Your task to perform on an android device: turn off translation in the chrome app Image 0: 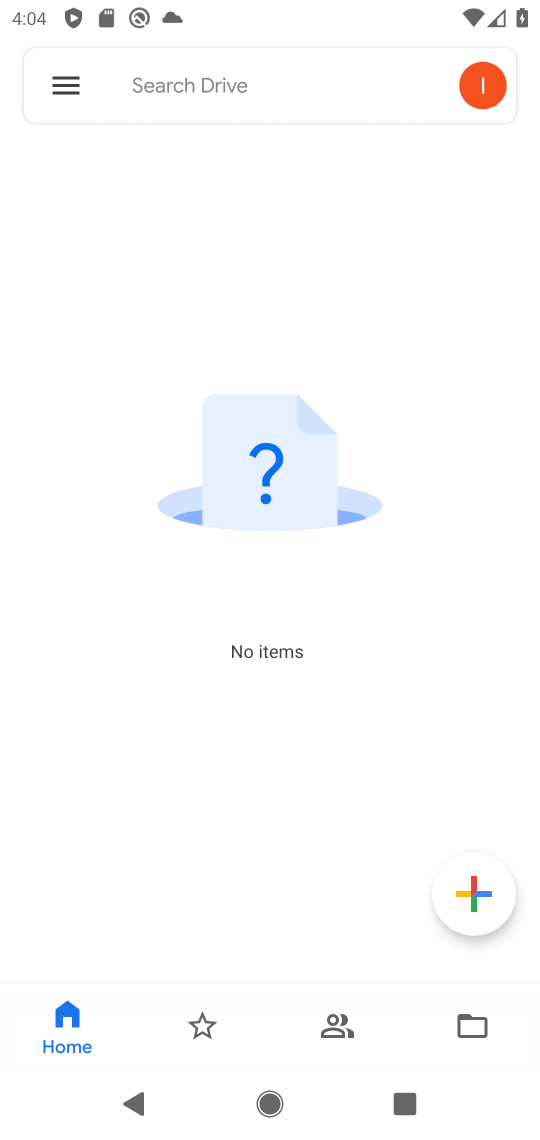
Step 0: press home button
Your task to perform on an android device: turn off translation in the chrome app Image 1: 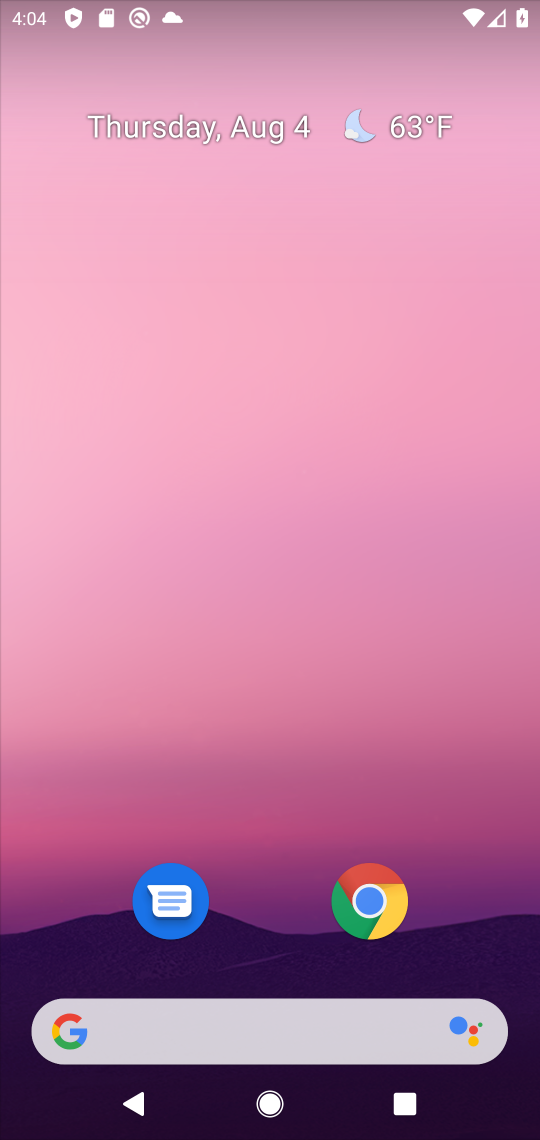
Step 1: drag from (311, 956) to (392, 133)
Your task to perform on an android device: turn off translation in the chrome app Image 2: 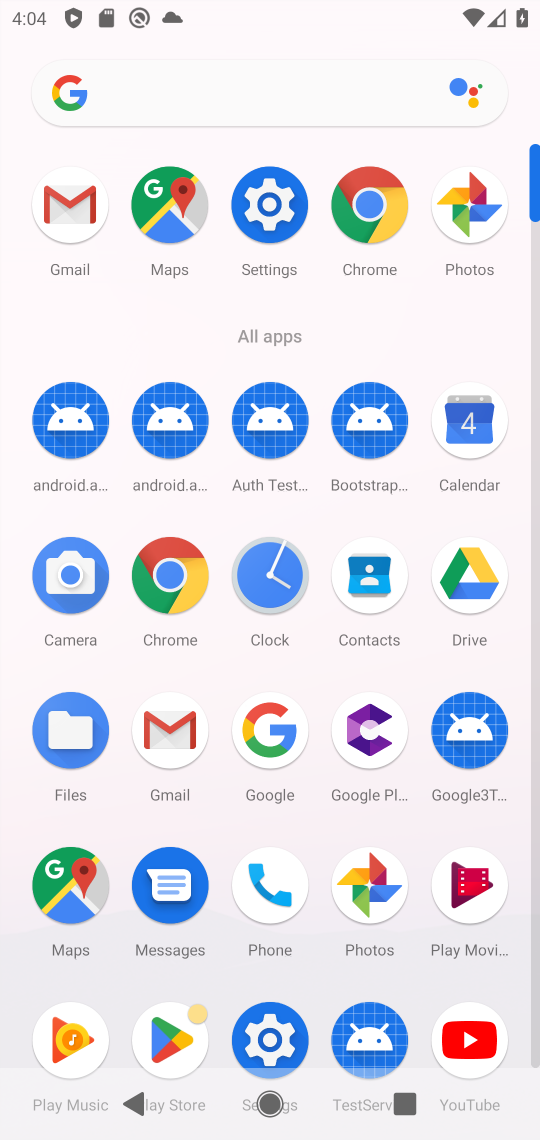
Step 2: click (172, 560)
Your task to perform on an android device: turn off translation in the chrome app Image 3: 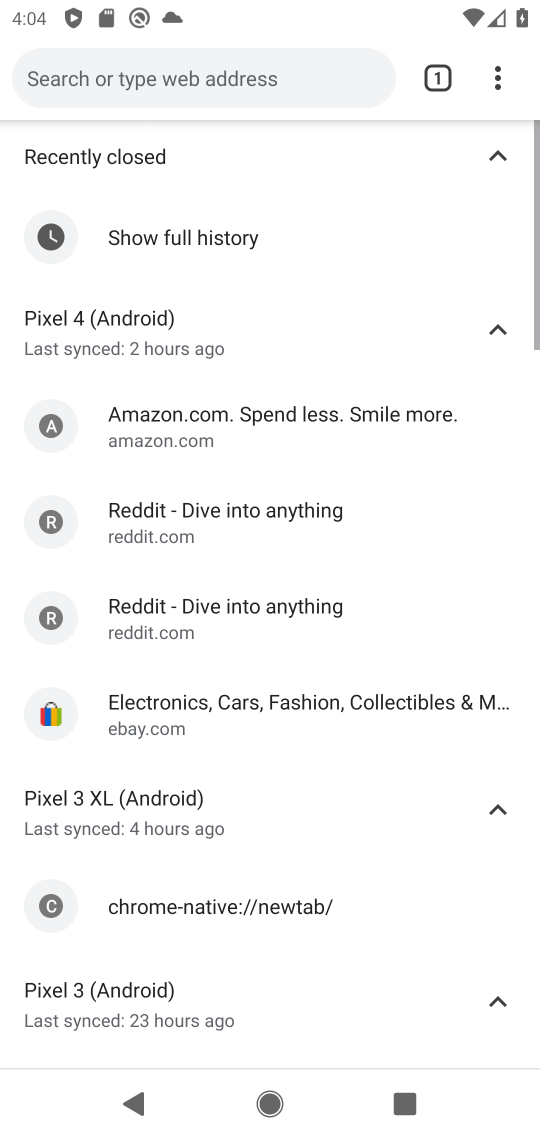
Step 3: drag from (496, 75) to (195, 735)
Your task to perform on an android device: turn off translation in the chrome app Image 4: 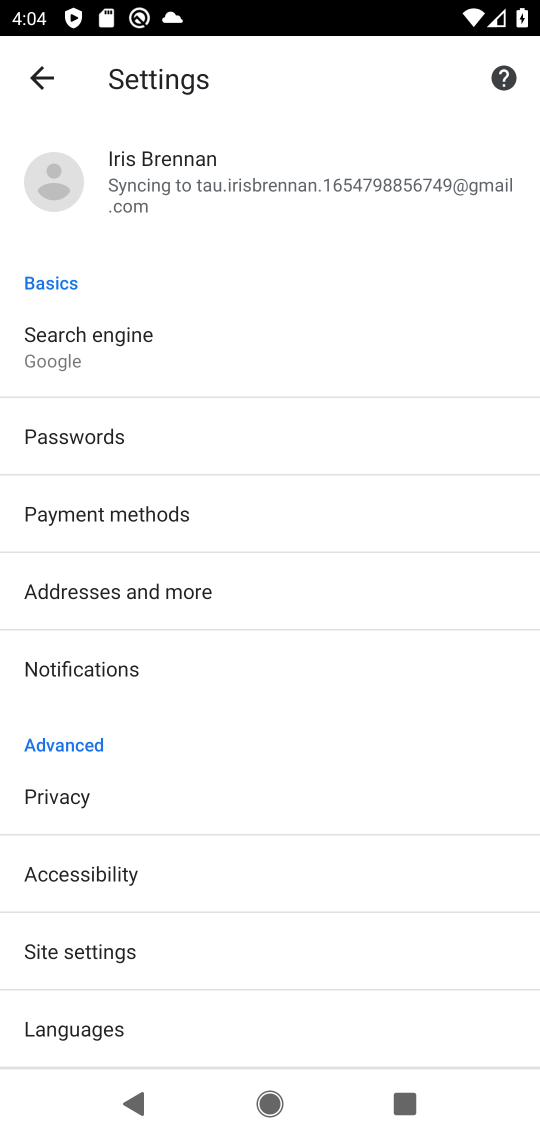
Step 4: drag from (165, 949) to (306, 437)
Your task to perform on an android device: turn off translation in the chrome app Image 5: 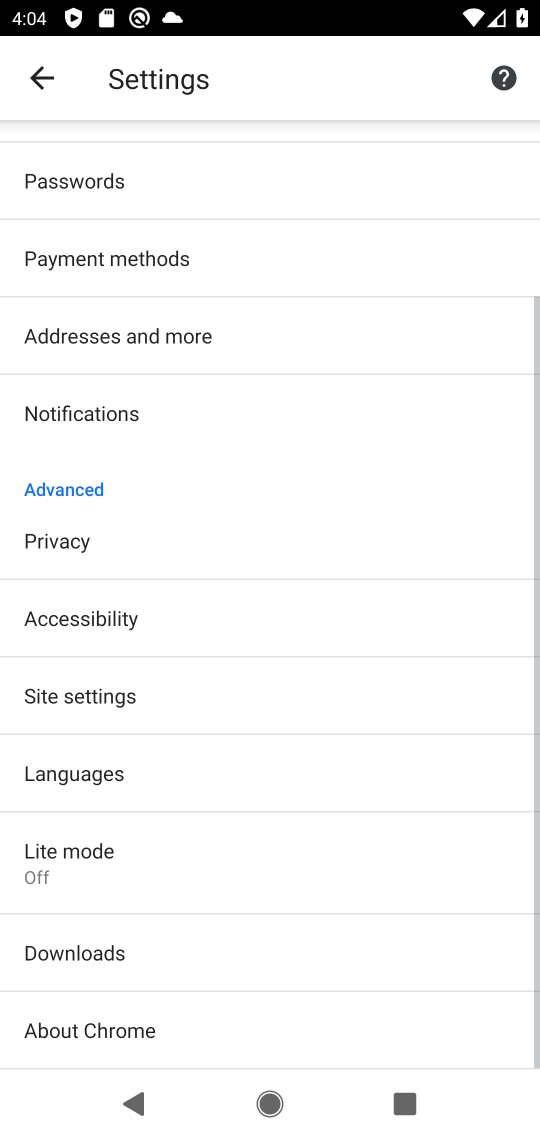
Step 5: click (66, 767)
Your task to perform on an android device: turn off translation in the chrome app Image 6: 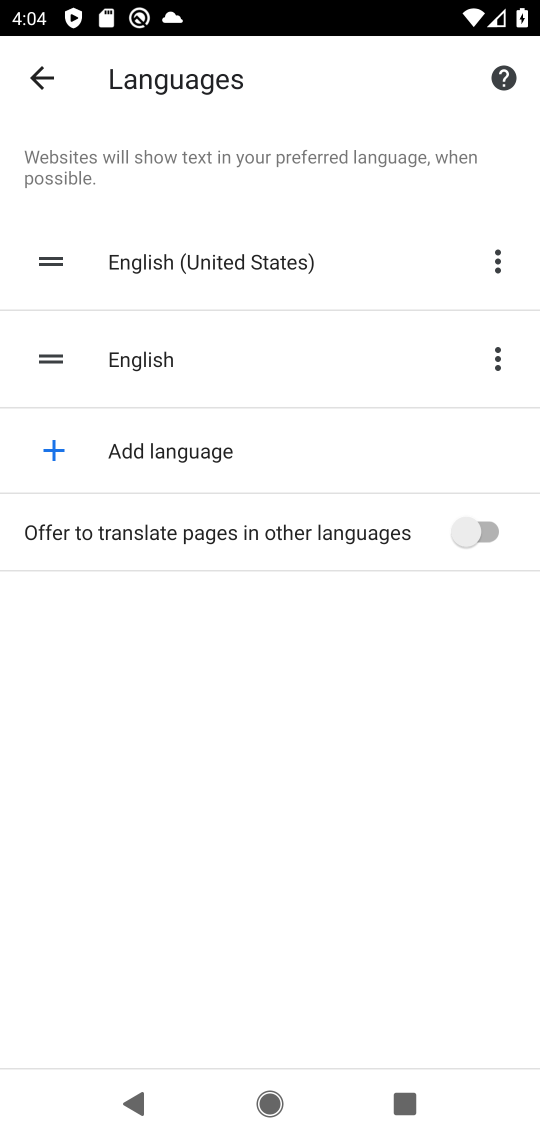
Step 6: task complete